Your task to perform on an android device: turn off location history Image 0: 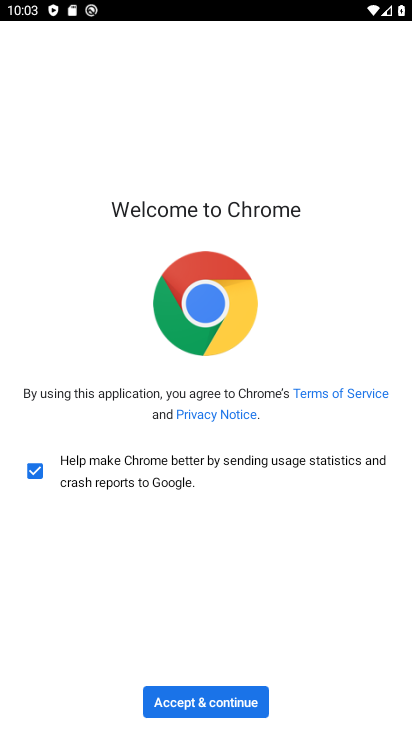
Step 0: press home button
Your task to perform on an android device: turn off location history Image 1: 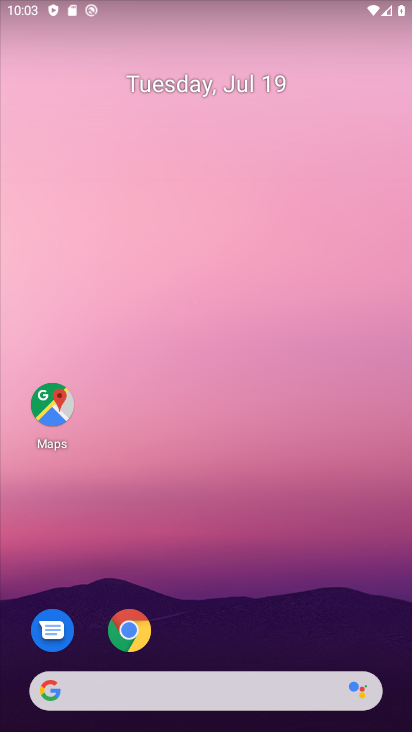
Step 1: drag from (51, 605) to (325, 142)
Your task to perform on an android device: turn off location history Image 2: 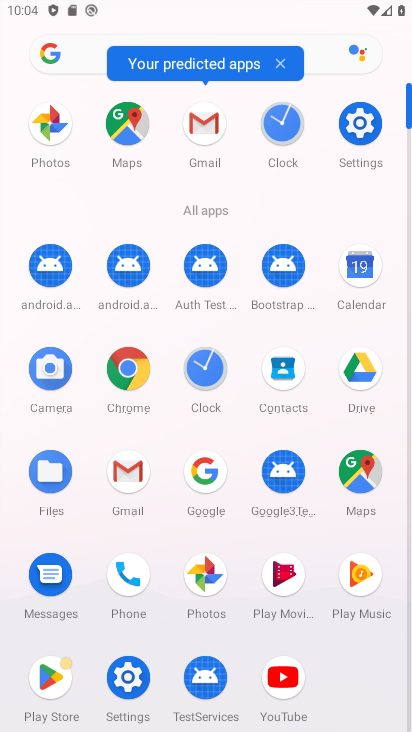
Step 2: click (128, 686)
Your task to perform on an android device: turn off location history Image 3: 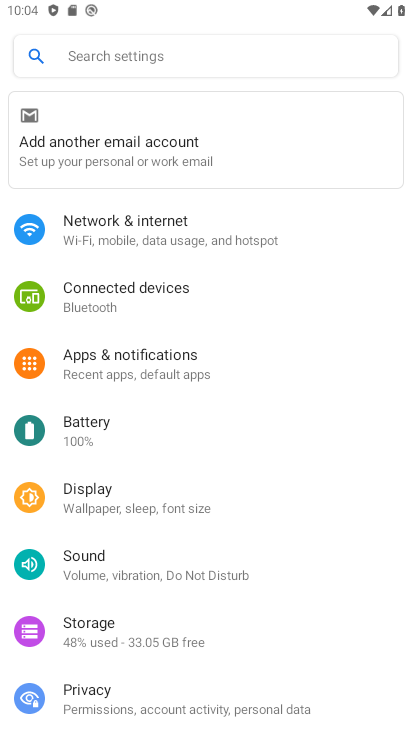
Step 3: click (274, 325)
Your task to perform on an android device: turn off location history Image 4: 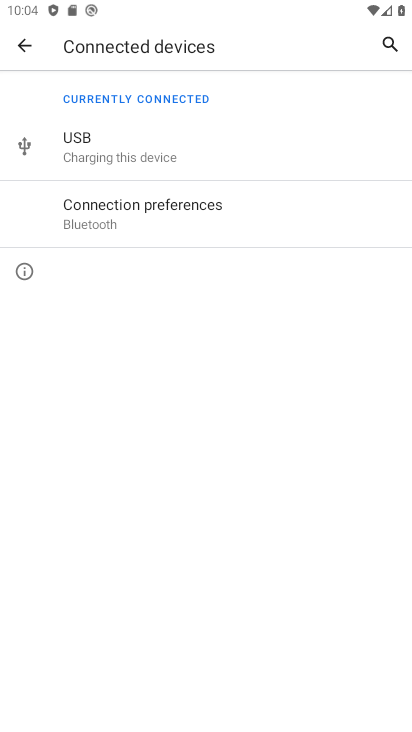
Step 4: click (30, 45)
Your task to perform on an android device: turn off location history Image 5: 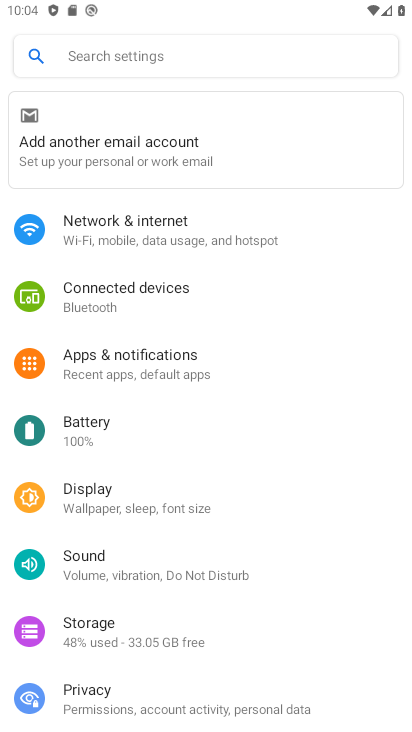
Step 5: drag from (309, 674) to (391, 294)
Your task to perform on an android device: turn off location history Image 6: 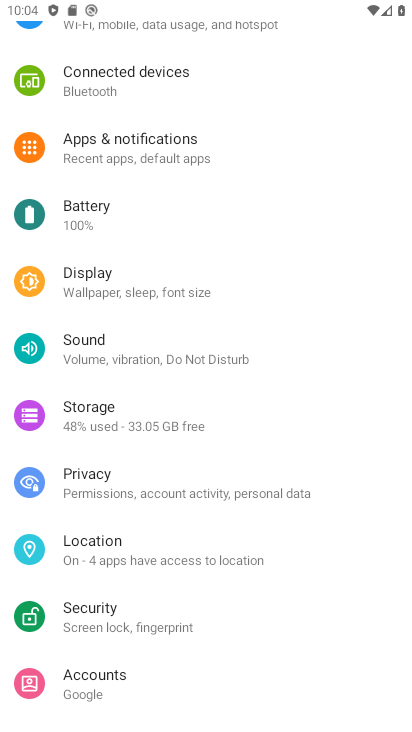
Step 6: click (120, 545)
Your task to perform on an android device: turn off location history Image 7: 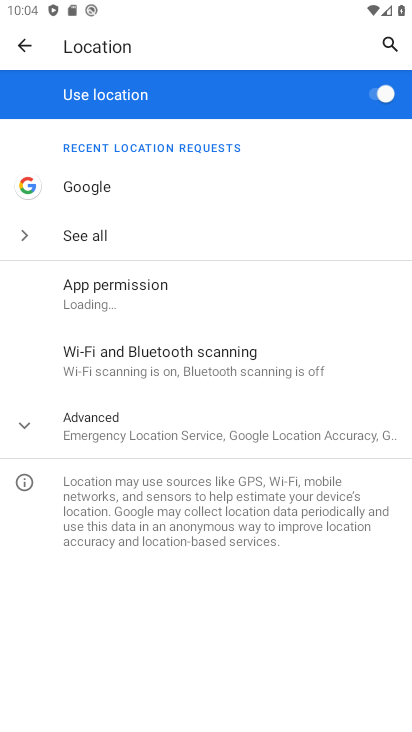
Step 7: click (118, 425)
Your task to perform on an android device: turn off location history Image 8: 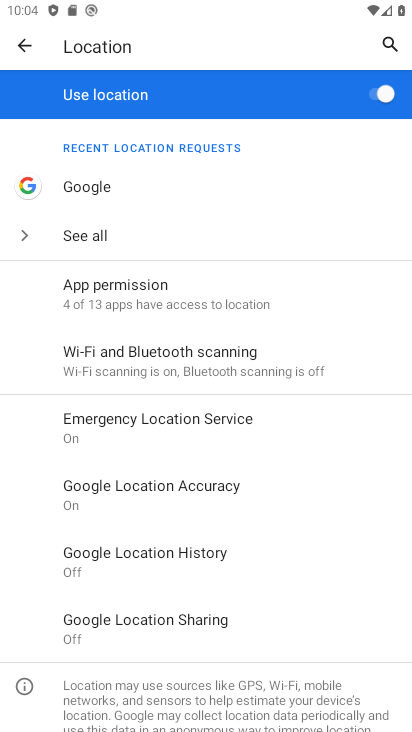
Step 8: click (136, 554)
Your task to perform on an android device: turn off location history Image 9: 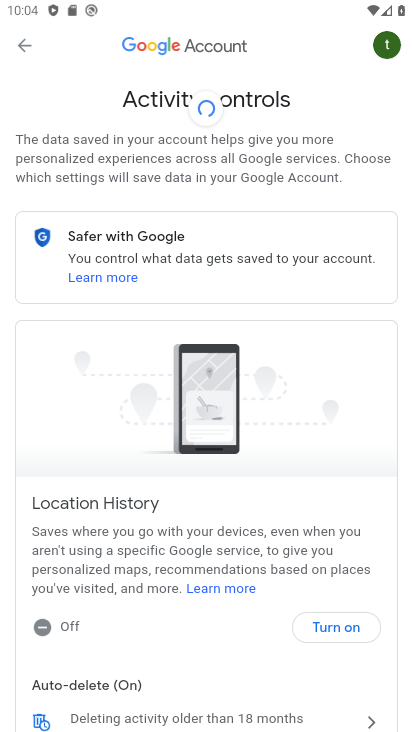
Step 9: task complete